Your task to perform on an android device: find snoozed emails in the gmail app Image 0: 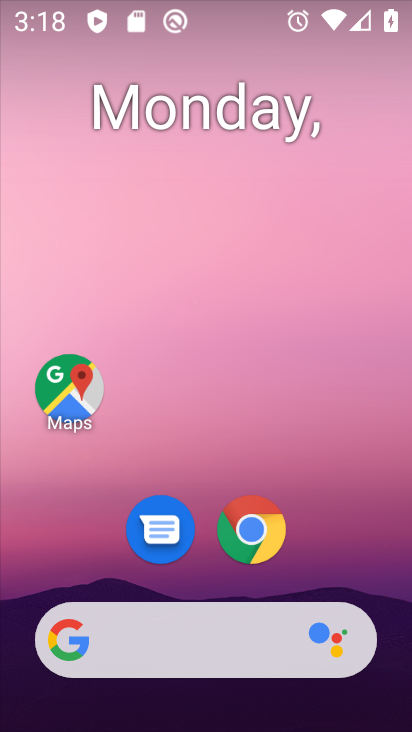
Step 0: drag from (294, 549) to (410, 117)
Your task to perform on an android device: find snoozed emails in the gmail app Image 1: 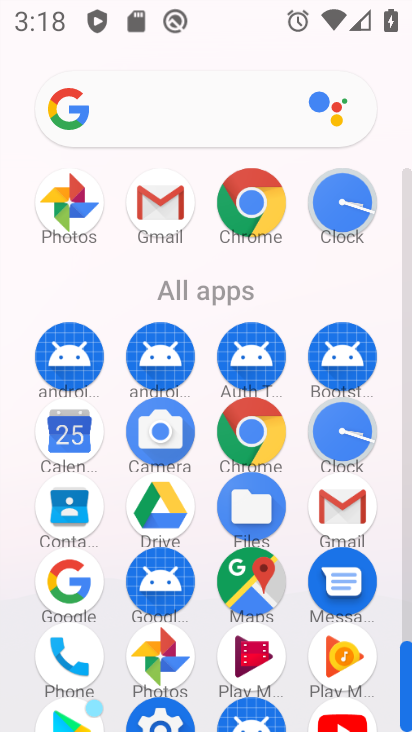
Step 1: click (351, 497)
Your task to perform on an android device: find snoozed emails in the gmail app Image 2: 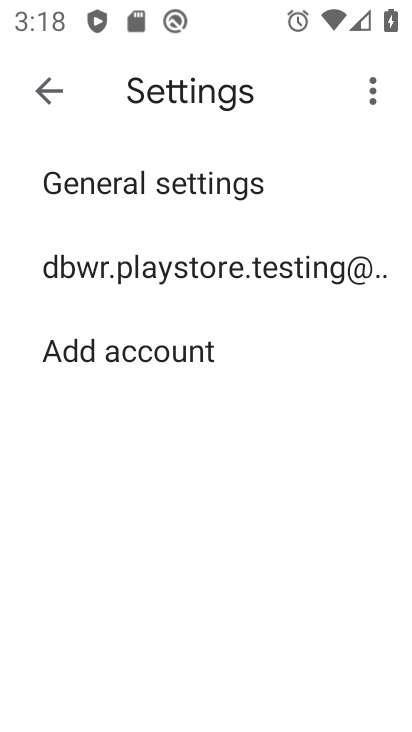
Step 2: click (47, 98)
Your task to perform on an android device: find snoozed emails in the gmail app Image 3: 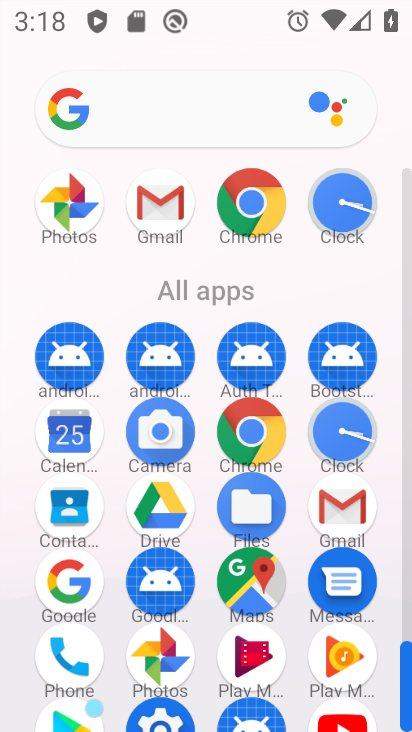
Step 3: click (358, 491)
Your task to perform on an android device: find snoozed emails in the gmail app Image 4: 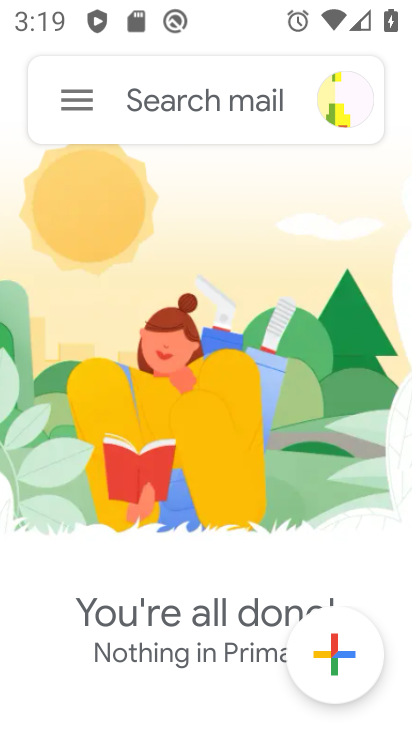
Step 4: click (66, 121)
Your task to perform on an android device: find snoozed emails in the gmail app Image 5: 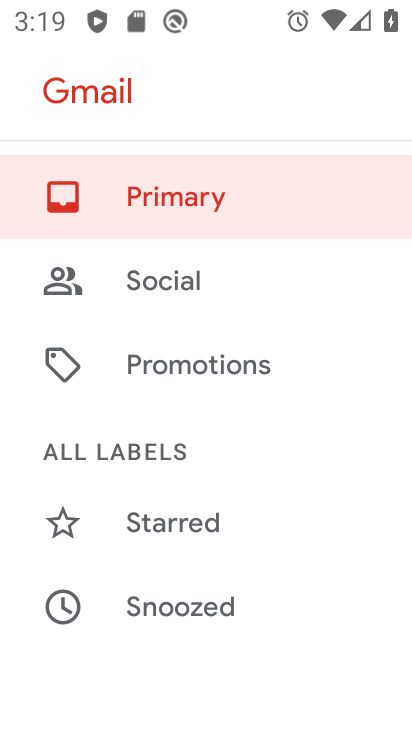
Step 5: drag from (140, 587) to (186, 306)
Your task to perform on an android device: find snoozed emails in the gmail app Image 6: 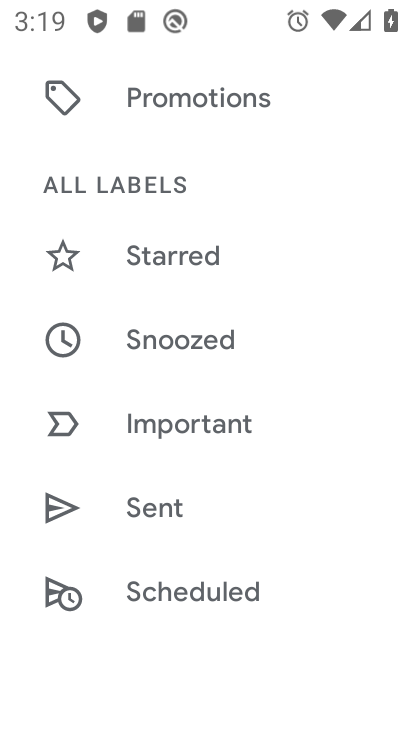
Step 6: click (152, 353)
Your task to perform on an android device: find snoozed emails in the gmail app Image 7: 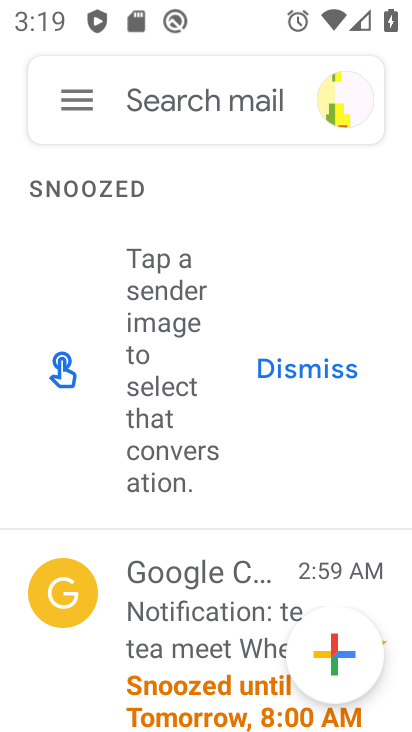
Step 7: task complete